Your task to perform on an android device: Open CNN.com Image 0: 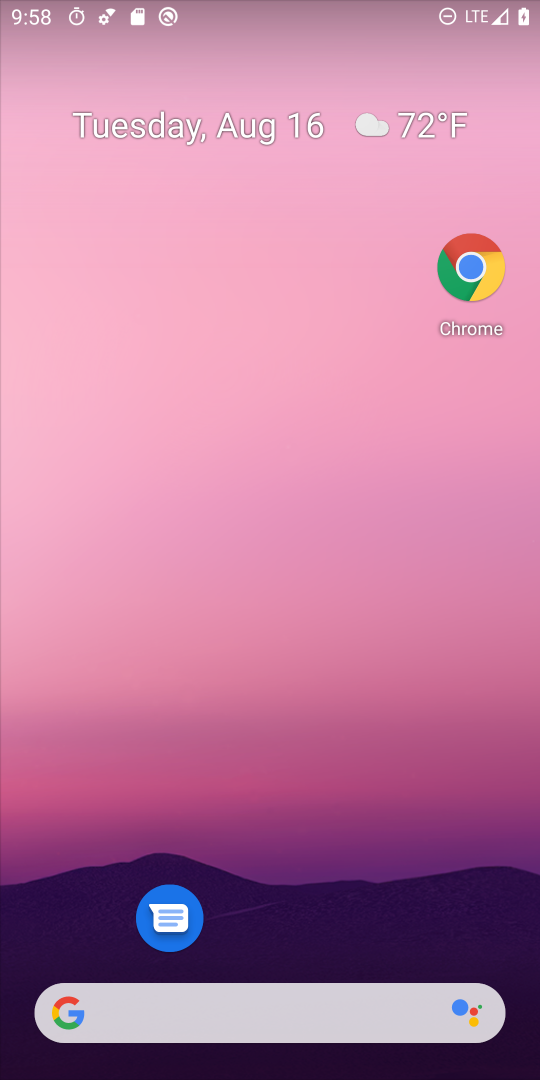
Step 0: drag from (276, 913) to (340, 98)
Your task to perform on an android device: Open CNN.com Image 1: 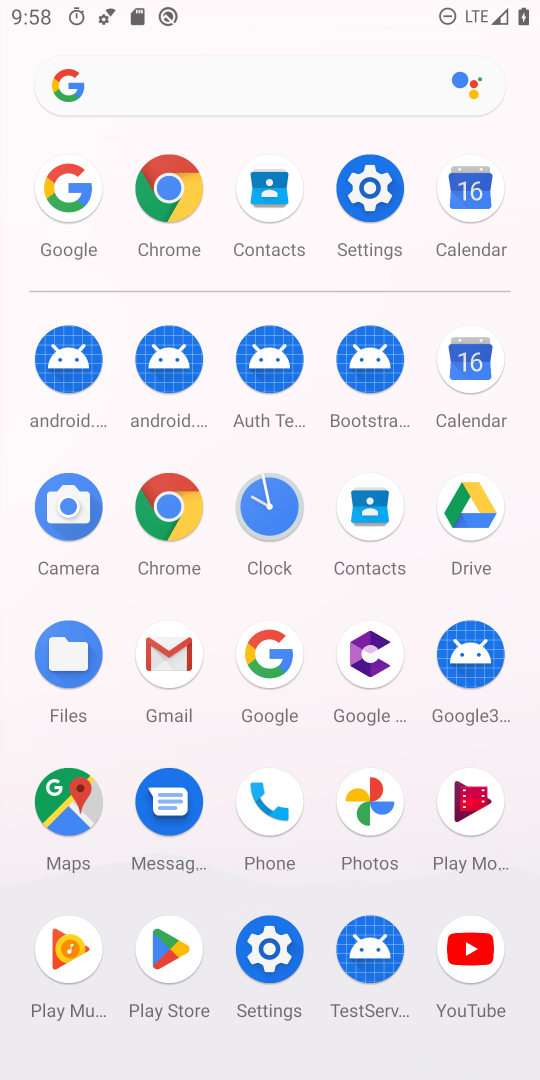
Step 1: click (175, 219)
Your task to perform on an android device: Open CNN.com Image 2: 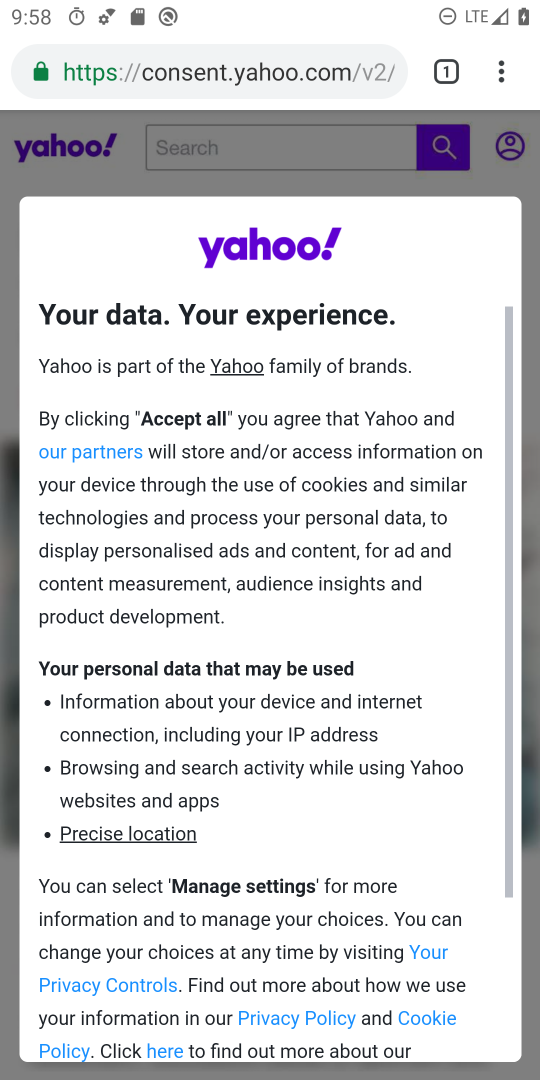
Step 2: click (368, 75)
Your task to perform on an android device: Open CNN.com Image 3: 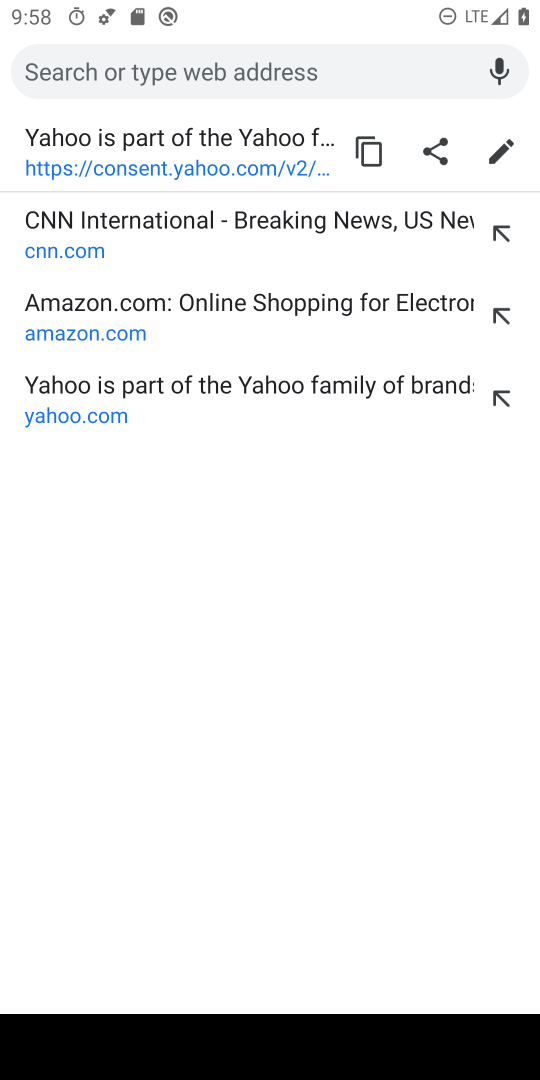
Step 3: click (145, 242)
Your task to perform on an android device: Open CNN.com Image 4: 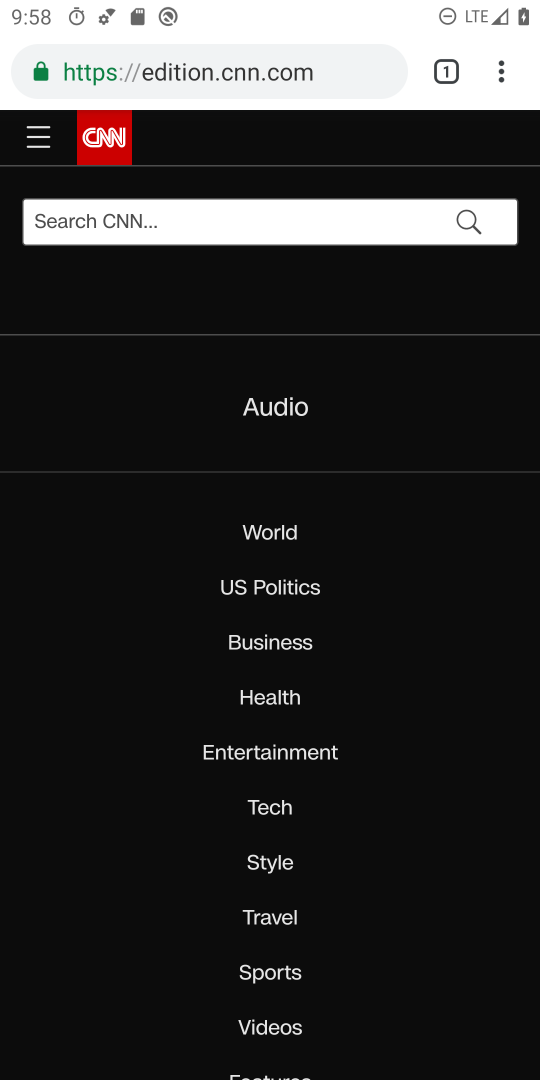
Step 4: task complete